Your task to perform on an android device: turn on priority inbox in the gmail app Image 0: 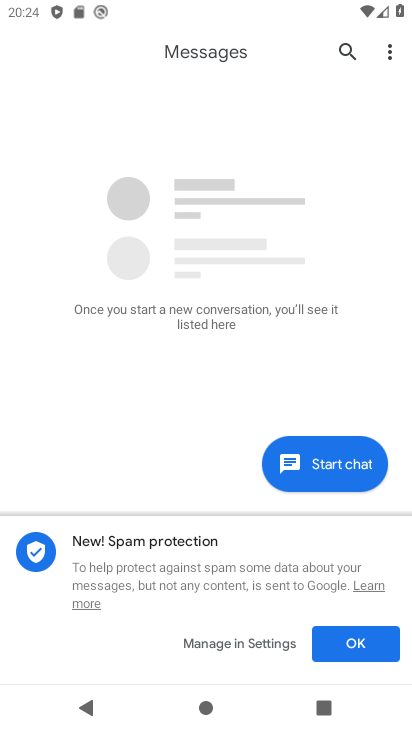
Step 0: press home button
Your task to perform on an android device: turn on priority inbox in the gmail app Image 1: 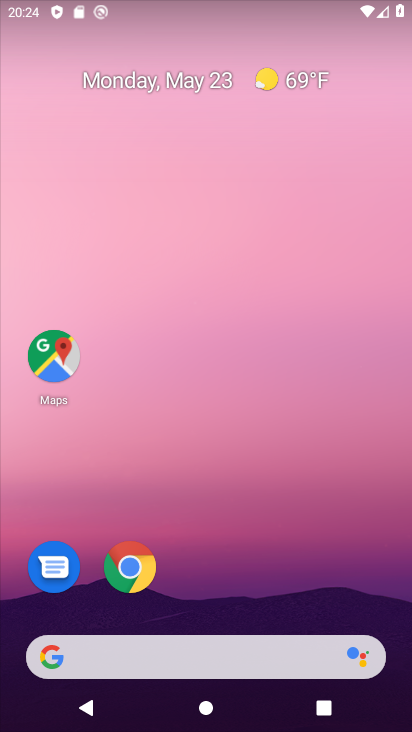
Step 1: drag from (207, 600) to (268, 13)
Your task to perform on an android device: turn on priority inbox in the gmail app Image 2: 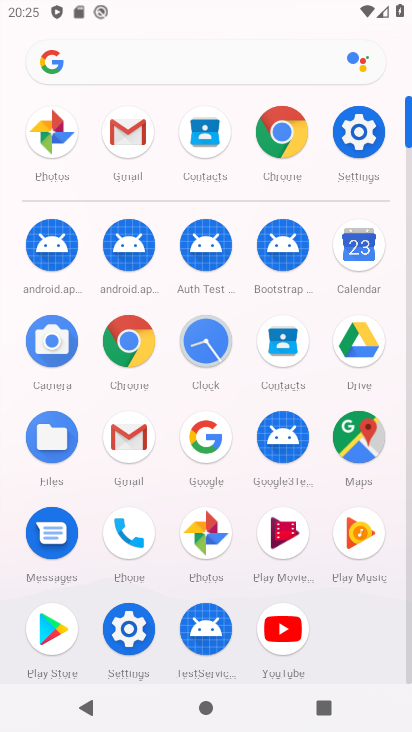
Step 2: click (141, 451)
Your task to perform on an android device: turn on priority inbox in the gmail app Image 3: 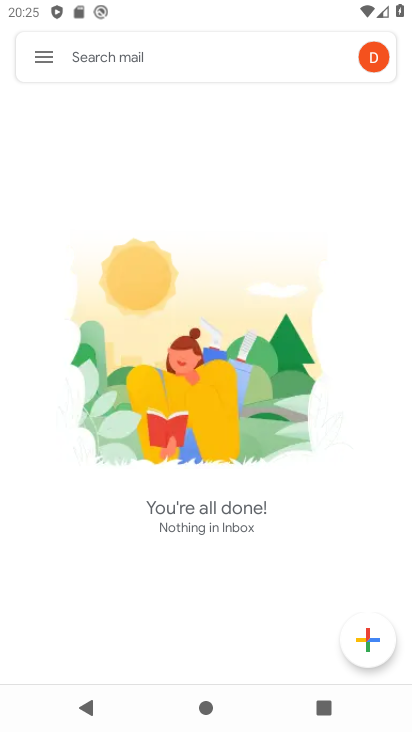
Step 3: click (45, 69)
Your task to perform on an android device: turn on priority inbox in the gmail app Image 4: 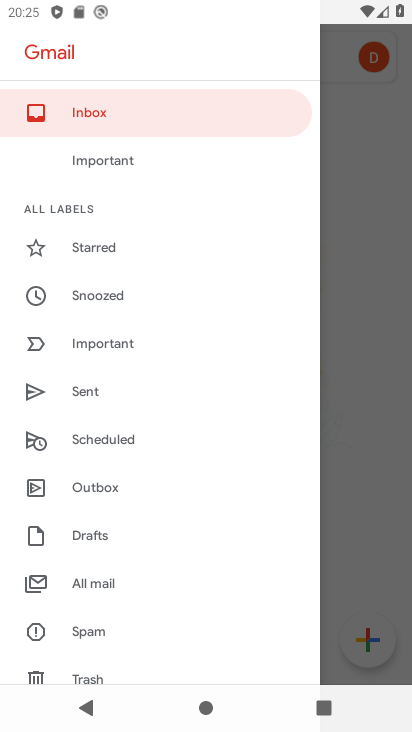
Step 4: drag from (126, 550) to (241, 0)
Your task to perform on an android device: turn on priority inbox in the gmail app Image 5: 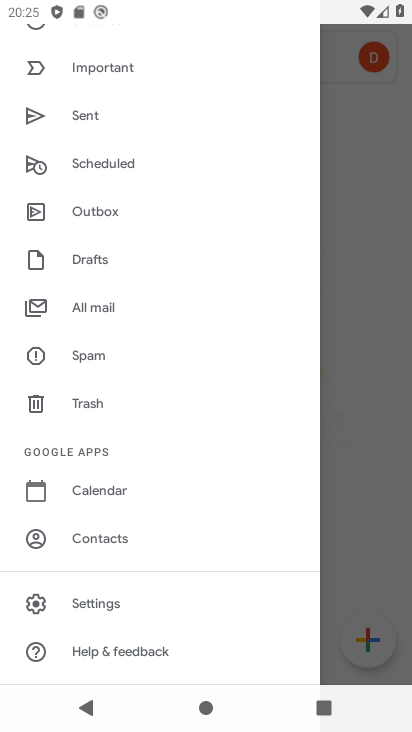
Step 5: click (113, 609)
Your task to perform on an android device: turn on priority inbox in the gmail app Image 6: 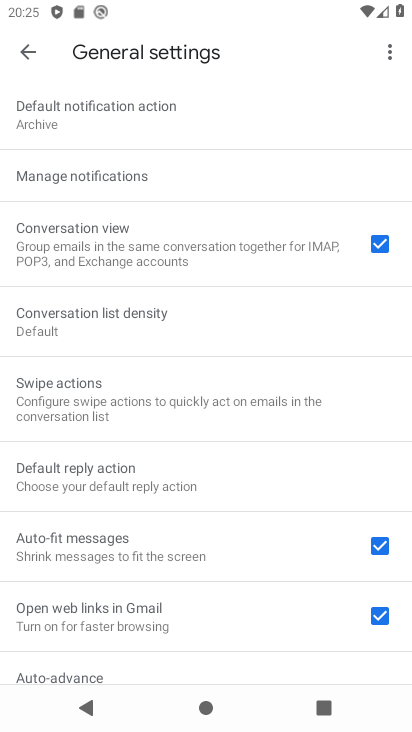
Step 6: click (29, 48)
Your task to perform on an android device: turn on priority inbox in the gmail app Image 7: 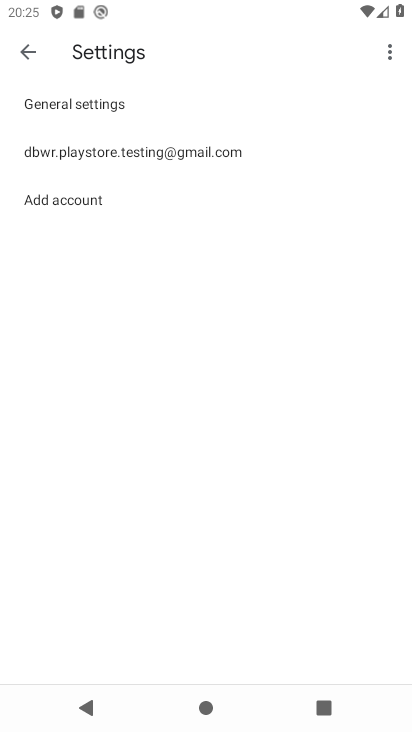
Step 7: click (132, 156)
Your task to perform on an android device: turn on priority inbox in the gmail app Image 8: 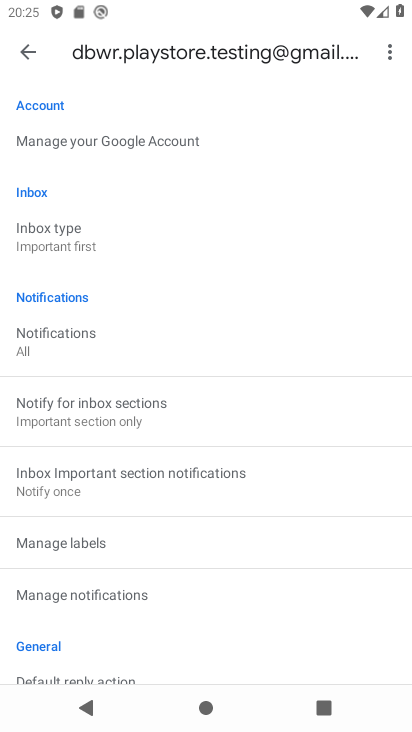
Step 8: click (79, 233)
Your task to perform on an android device: turn on priority inbox in the gmail app Image 9: 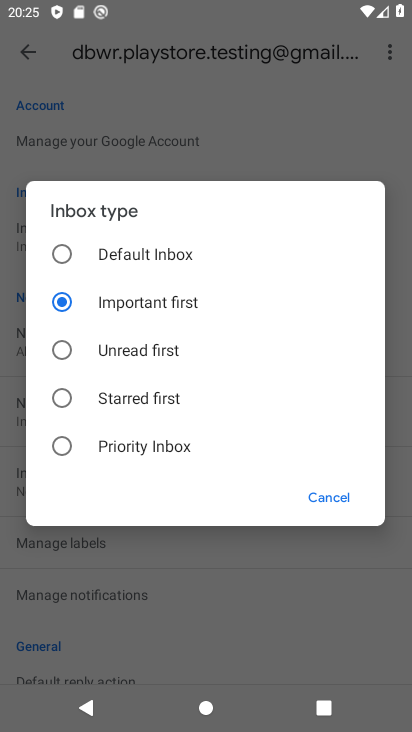
Step 9: click (102, 446)
Your task to perform on an android device: turn on priority inbox in the gmail app Image 10: 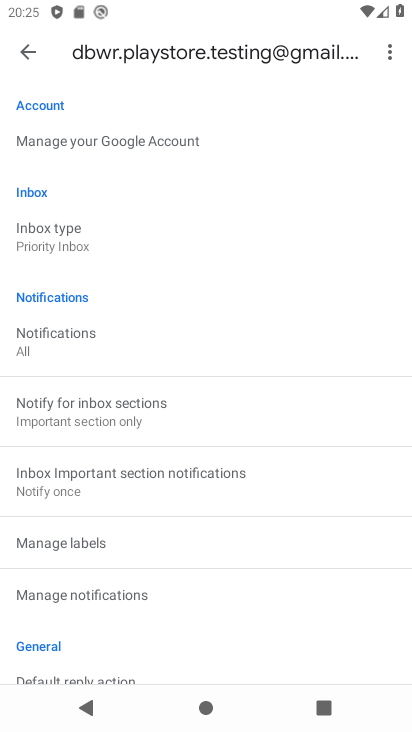
Step 10: task complete